Your task to perform on an android device: When is my next appointment? Image 0: 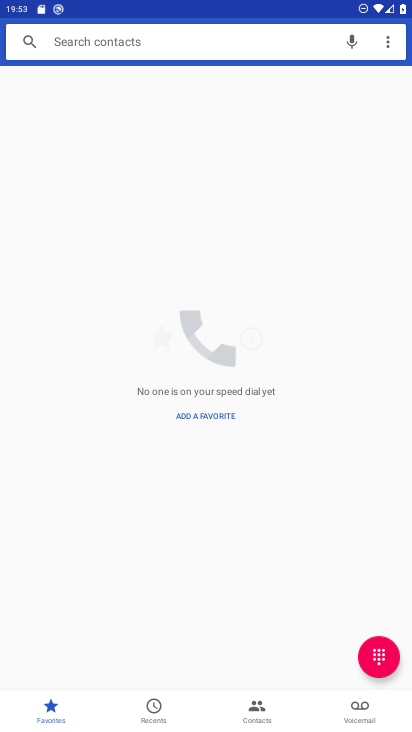
Step 0: press home button
Your task to perform on an android device: When is my next appointment? Image 1: 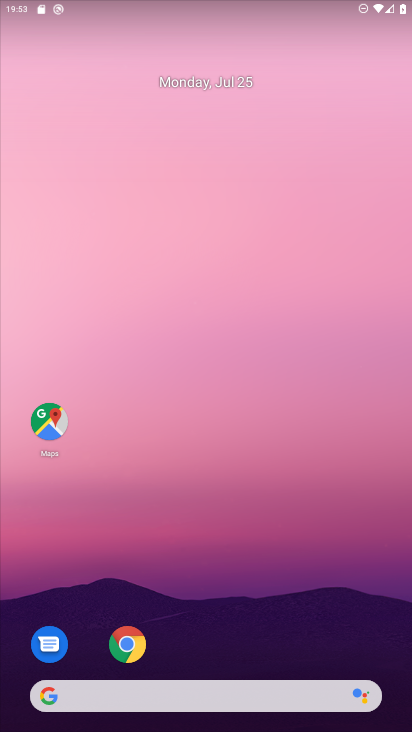
Step 1: drag from (223, 637) to (222, 74)
Your task to perform on an android device: When is my next appointment? Image 2: 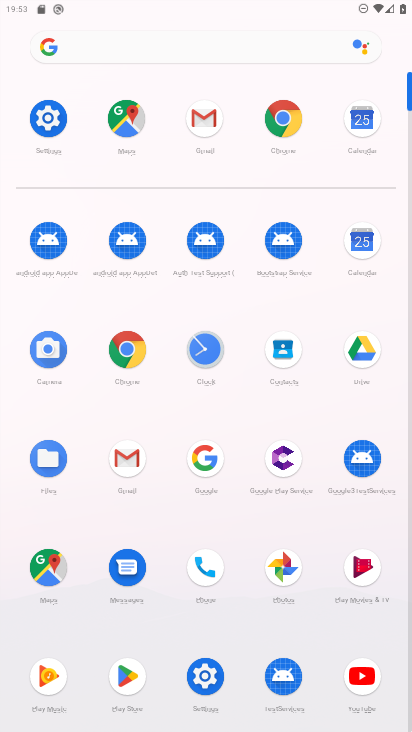
Step 2: click (359, 238)
Your task to perform on an android device: When is my next appointment? Image 3: 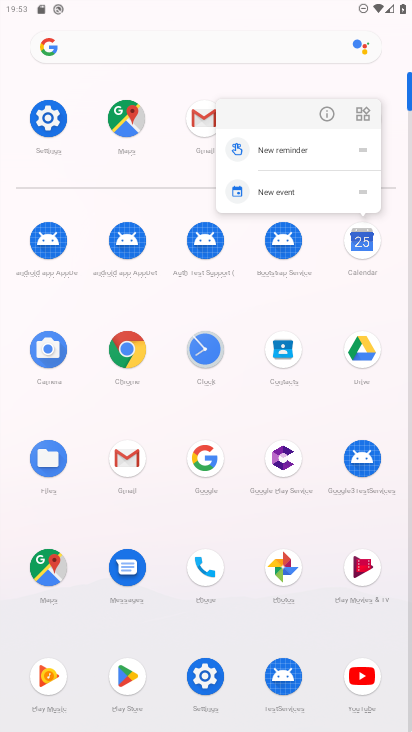
Step 3: click (359, 241)
Your task to perform on an android device: When is my next appointment? Image 4: 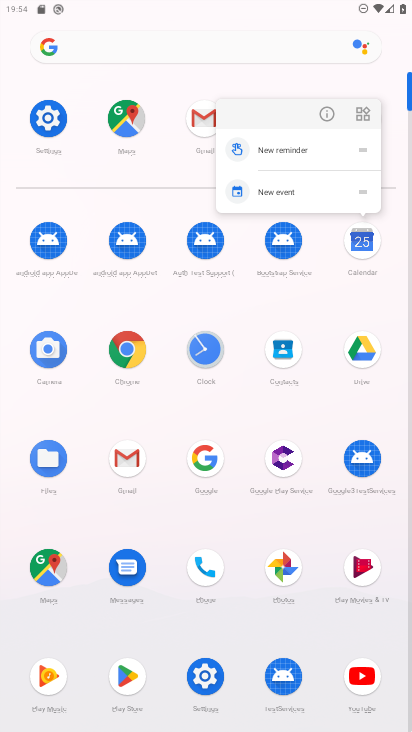
Step 4: click (360, 237)
Your task to perform on an android device: When is my next appointment? Image 5: 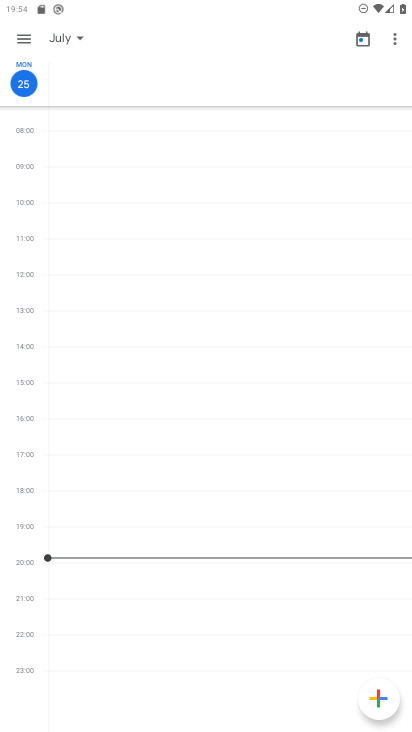
Step 5: click (37, 86)
Your task to perform on an android device: When is my next appointment? Image 6: 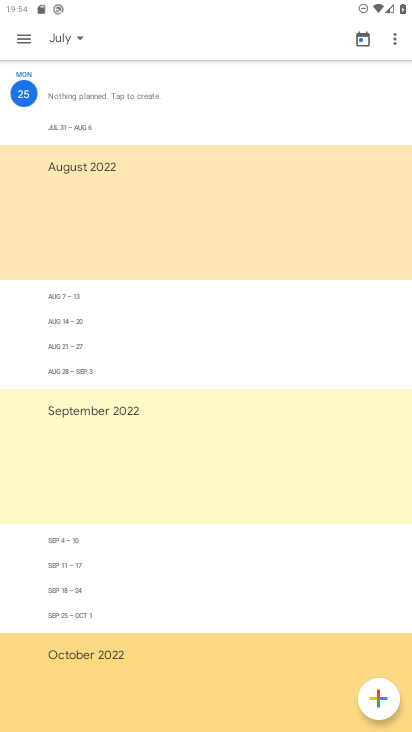
Step 6: task complete